Your task to perform on an android device: Open Google Maps Image 0: 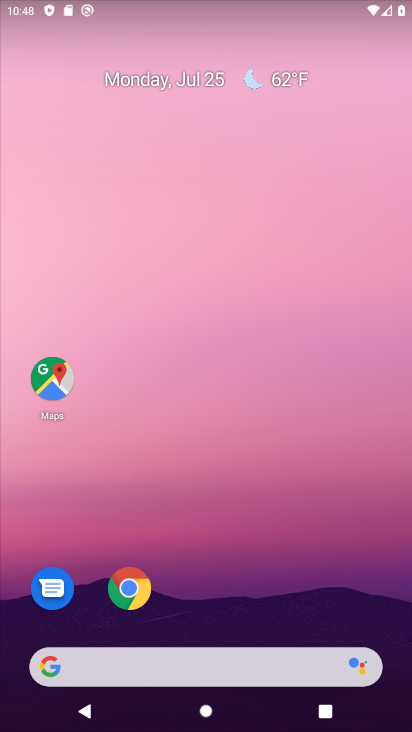
Step 0: click (50, 375)
Your task to perform on an android device: Open Google Maps Image 1: 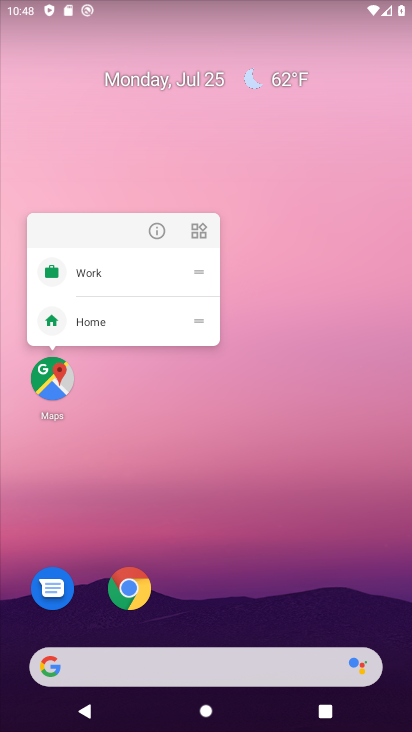
Step 1: click (50, 375)
Your task to perform on an android device: Open Google Maps Image 2: 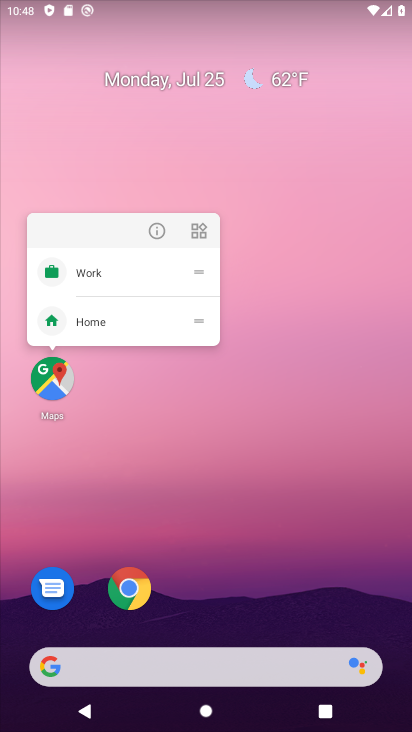
Step 2: click (50, 375)
Your task to perform on an android device: Open Google Maps Image 3: 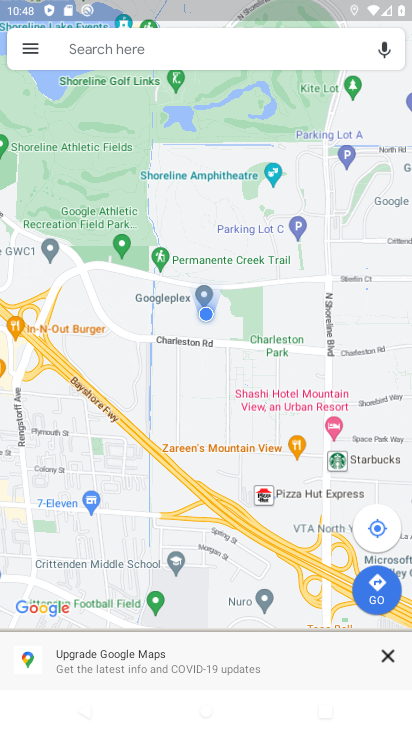
Step 3: task complete